Your task to perform on an android device: turn off improve location accuracy Image 0: 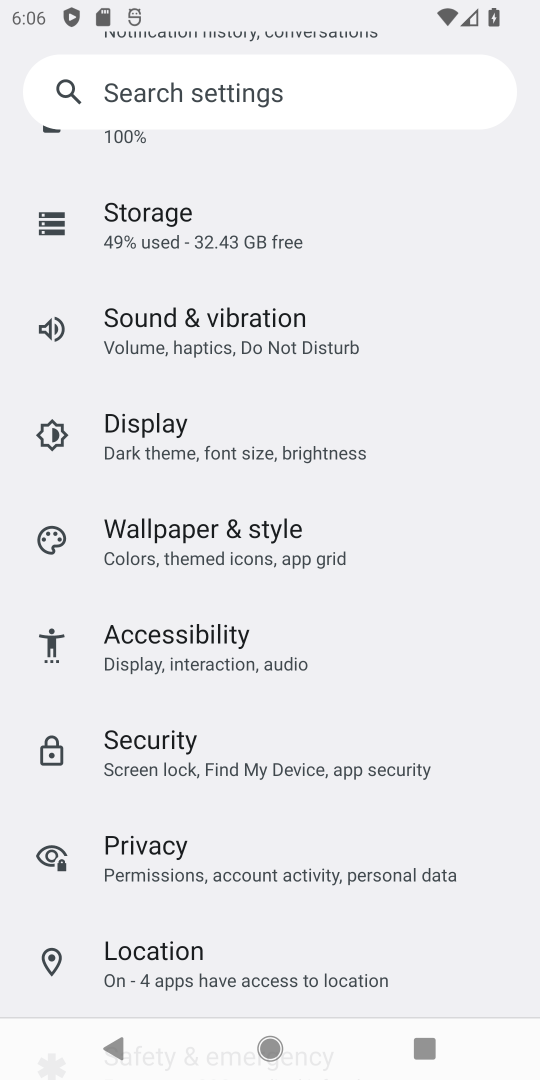
Step 0: click (301, 953)
Your task to perform on an android device: turn off improve location accuracy Image 1: 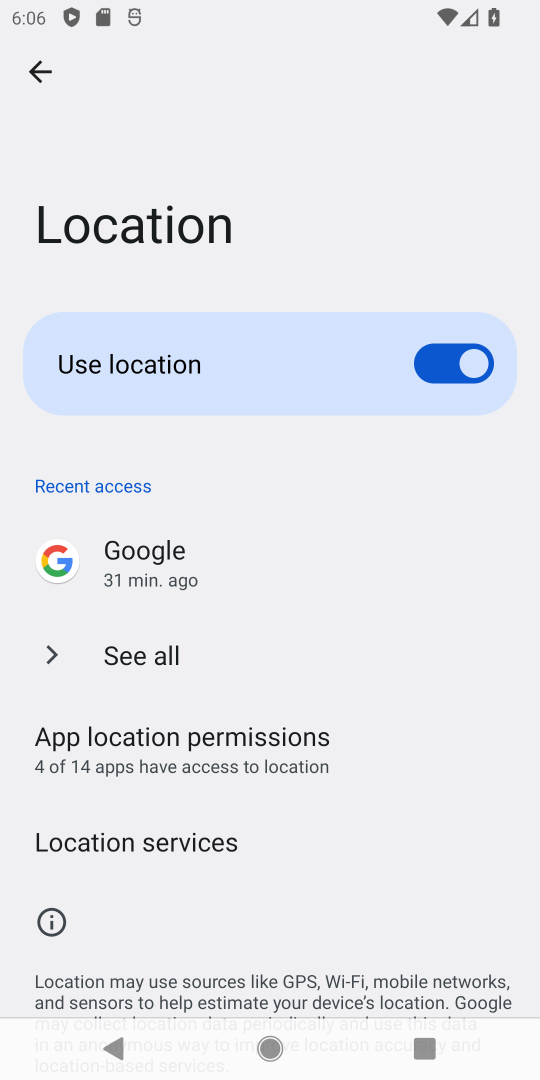
Step 1: click (247, 836)
Your task to perform on an android device: turn off improve location accuracy Image 2: 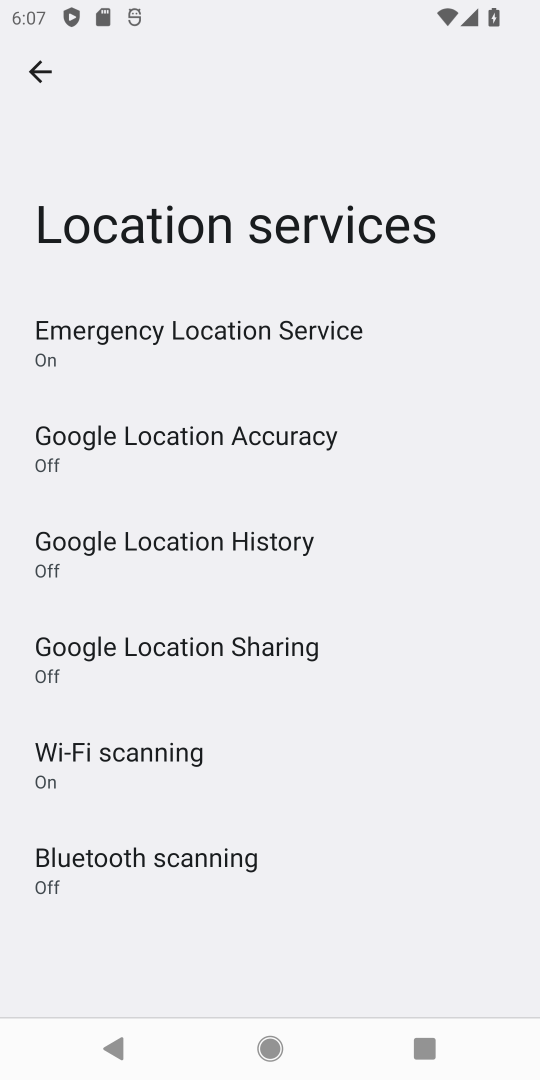
Step 2: click (75, 455)
Your task to perform on an android device: turn off improve location accuracy Image 3: 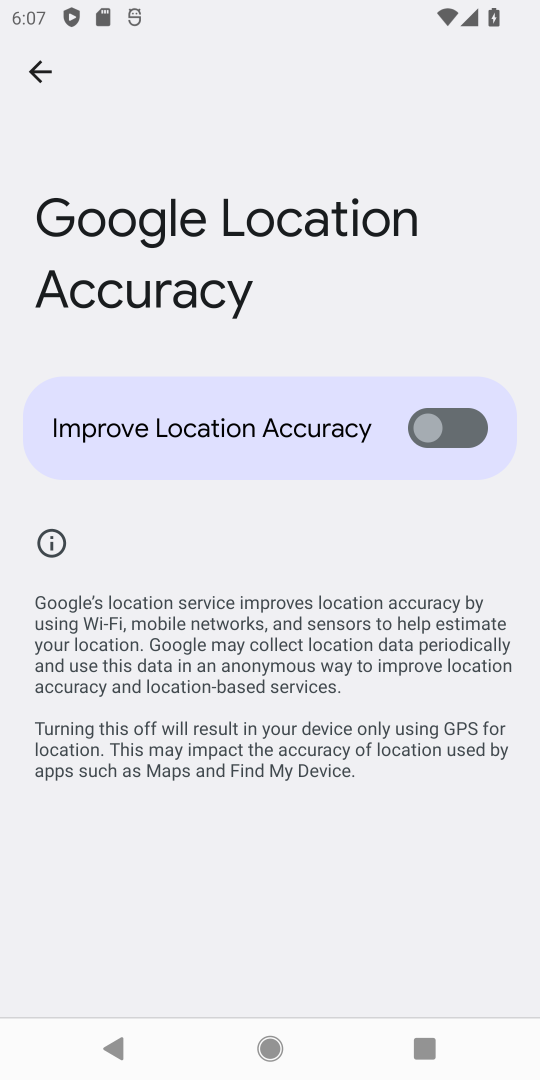
Step 3: task complete